Your task to perform on an android device: turn off picture-in-picture Image 0: 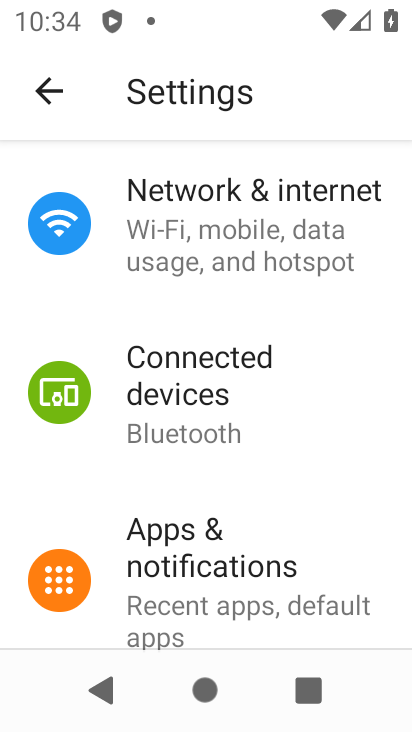
Step 0: press home button
Your task to perform on an android device: turn off picture-in-picture Image 1: 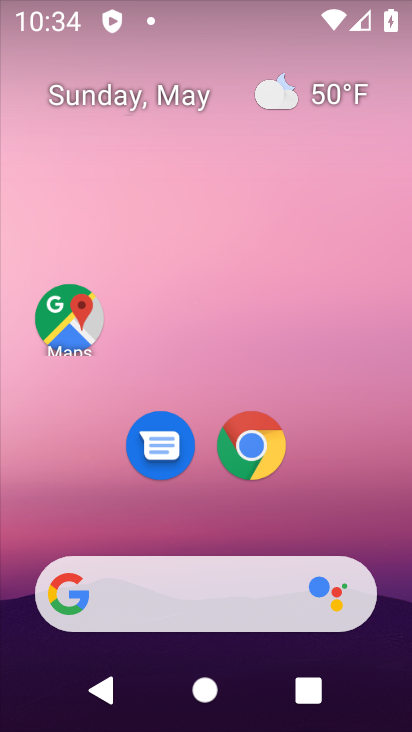
Step 1: click (263, 439)
Your task to perform on an android device: turn off picture-in-picture Image 2: 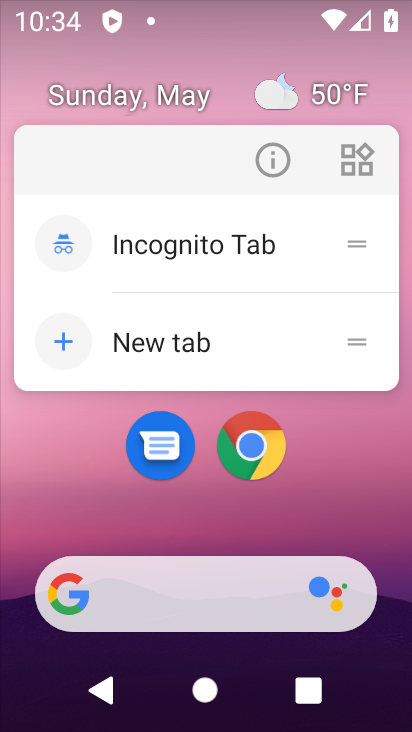
Step 2: click (281, 170)
Your task to perform on an android device: turn off picture-in-picture Image 3: 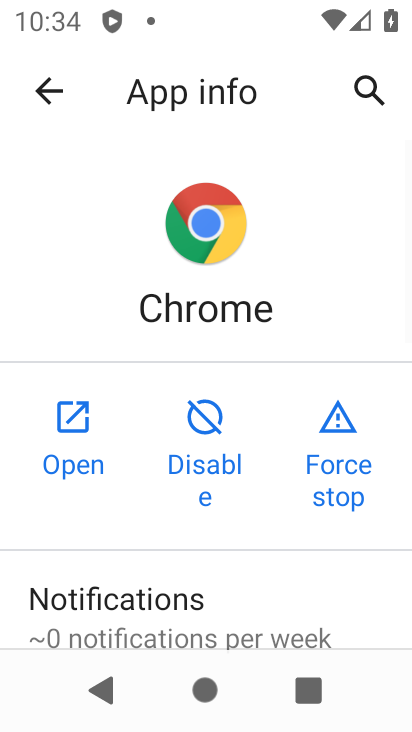
Step 3: drag from (247, 521) to (257, 178)
Your task to perform on an android device: turn off picture-in-picture Image 4: 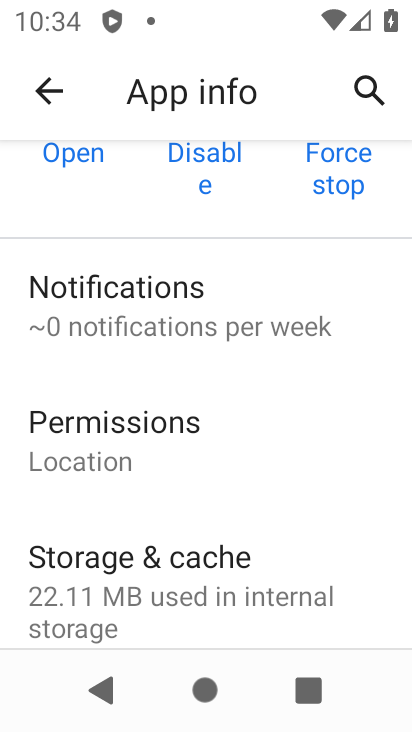
Step 4: drag from (258, 533) to (297, 146)
Your task to perform on an android device: turn off picture-in-picture Image 5: 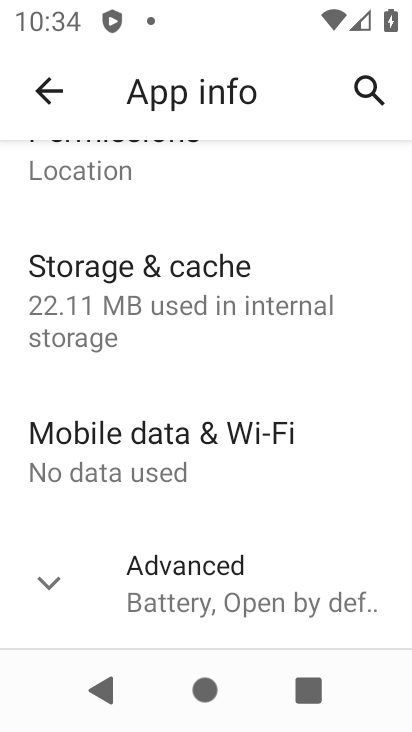
Step 5: click (189, 601)
Your task to perform on an android device: turn off picture-in-picture Image 6: 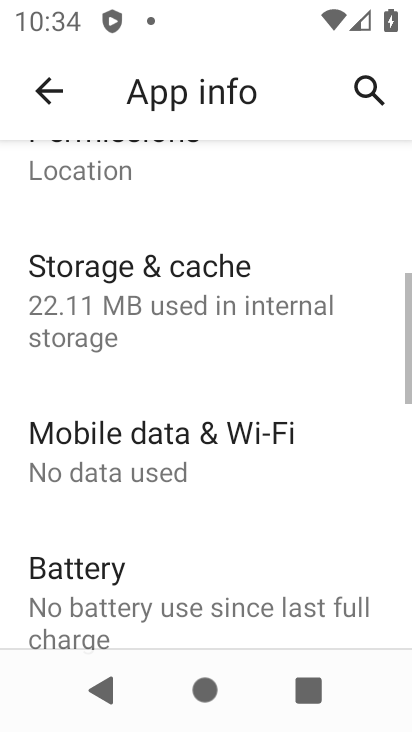
Step 6: drag from (190, 604) to (247, 234)
Your task to perform on an android device: turn off picture-in-picture Image 7: 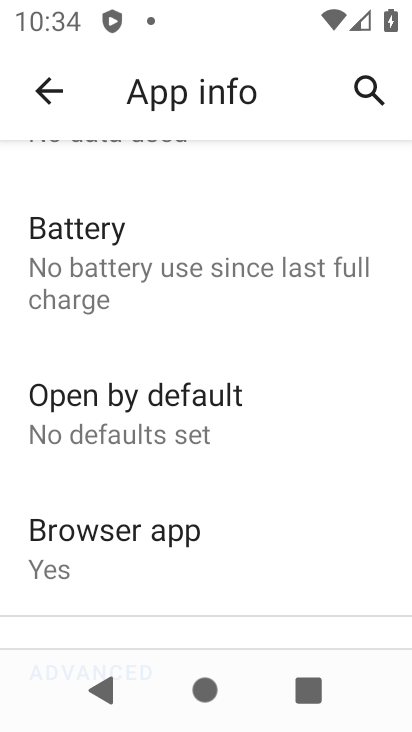
Step 7: drag from (229, 539) to (284, 213)
Your task to perform on an android device: turn off picture-in-picture Image 8: 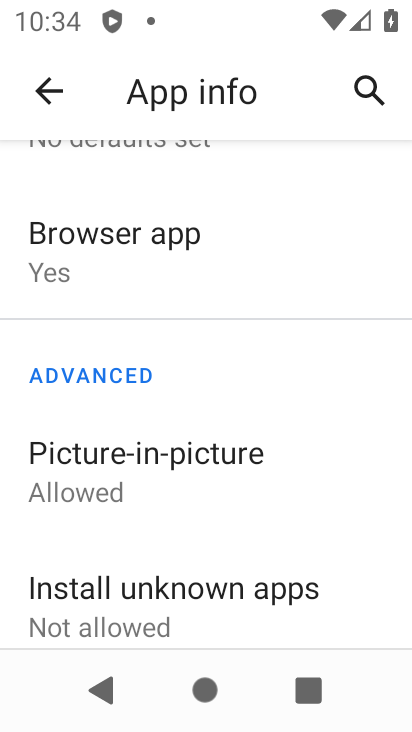
Step 8: click (256, 485)
Your task to perform on an android device: turn off picture-in-picture Image 9: 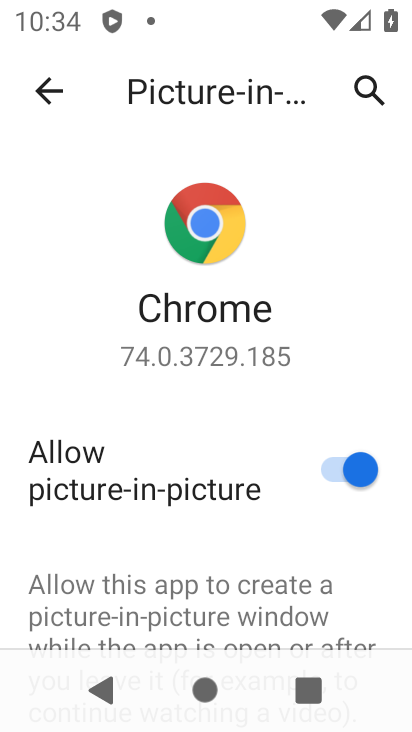
Step 9: click (327, 477)
Your task to perform on an android device: turn off picture-in-picture Image 10: 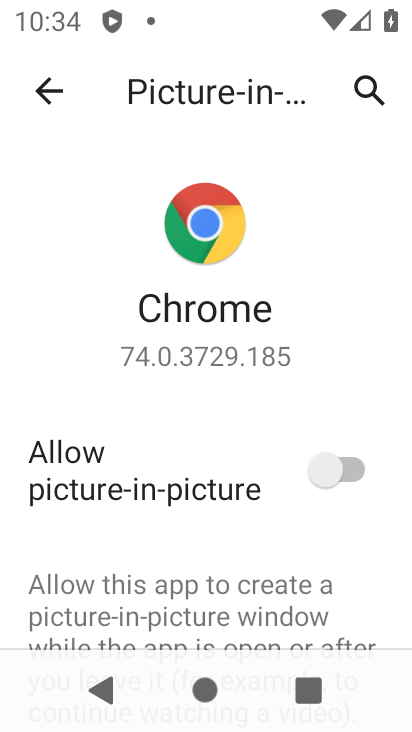
Step 10: task complete